Your task to perform on an android device: open chrome and create a bookmark for the current page Image 0: 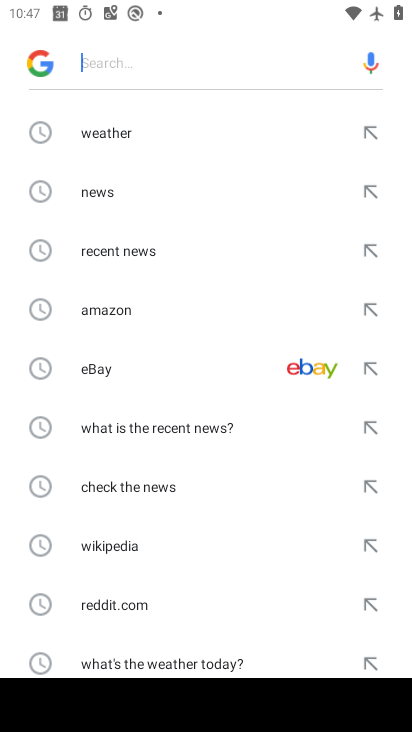
Step 0: press back button
Your task to perform on an android device: open chrome and create a bookmark for the current page Image 1: 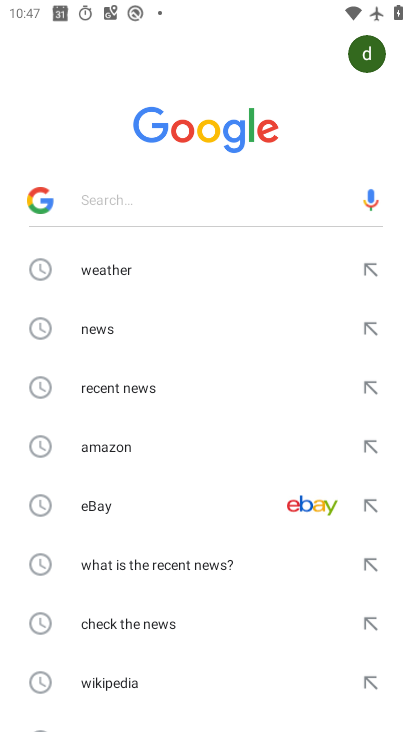
Step 1: press home button
Your task to perform on an android device: open chrome and create a bookmark for the current page Image 2: 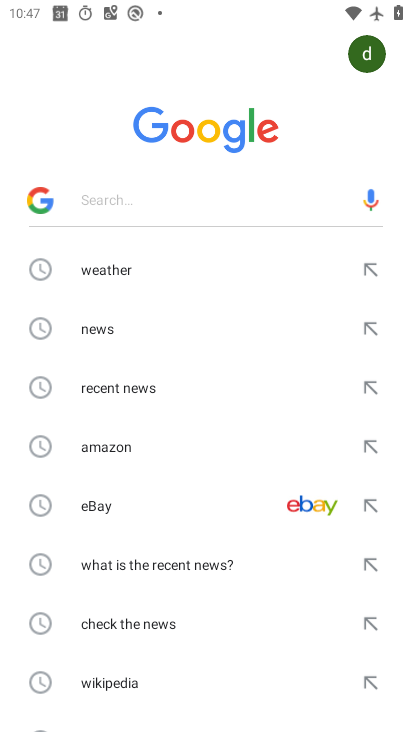
Step 2: press home button
Your task to perform on an android device: open chrome and create a bookmark for the current page Image 3: 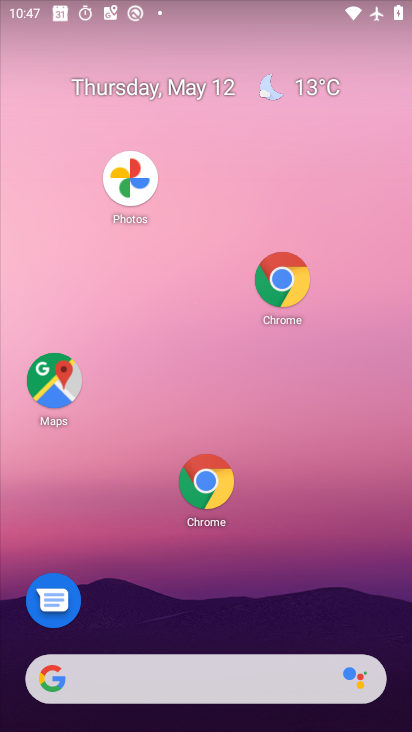
Step 3: drag from (243, 511) to (42, 75)
Your task to perform on an android device: open chrome and create a bookmark for the current page Image 4: 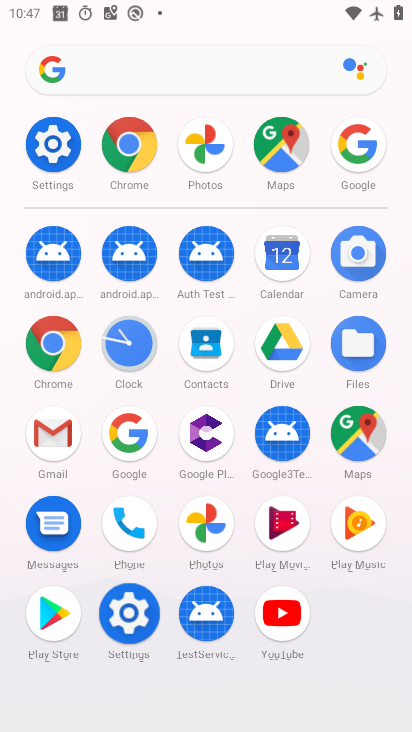
Step 4: click (54, 338)
Your task to perform on an android device: open chrome and create a bookmark for the current page Image 5: 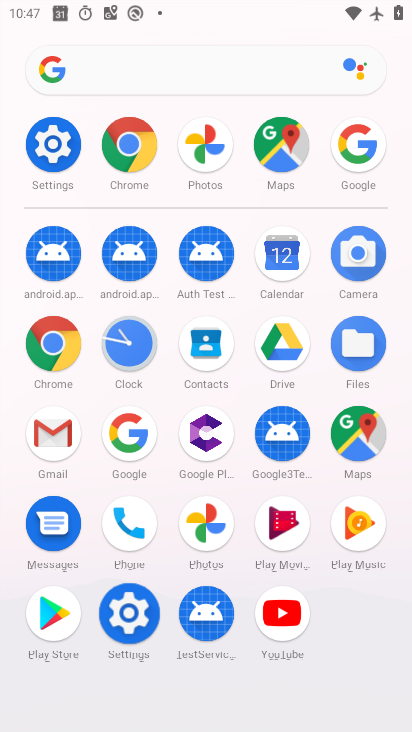
Step 5: click (54, 338)
Your task to perform on an android device: open chrome and create a bookmark for the current page Image 6: 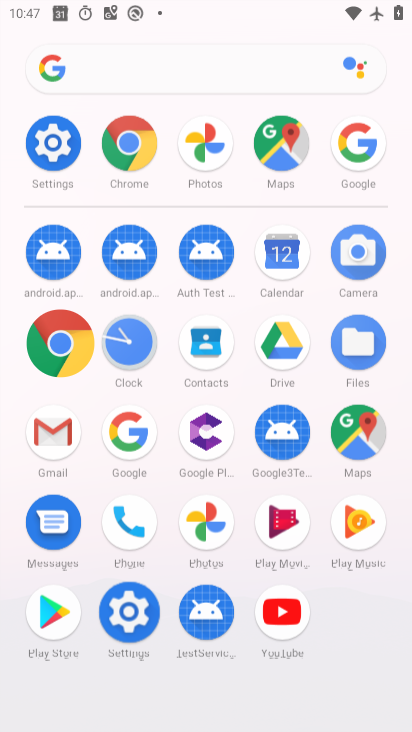
Step 6: click (54, 338)
Your task to perform on an android device: open chrome and create a bookmark for the current page Image 7: 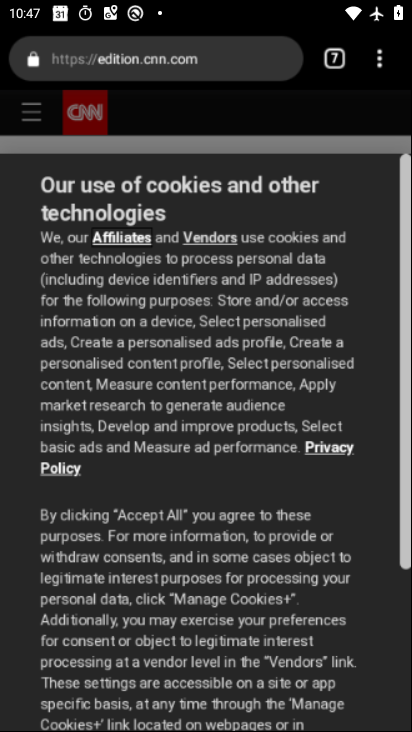
Step 7: click (54, 339)
Your task to perform on an android device: open chrome and create a bookmark for the current page Image 8: 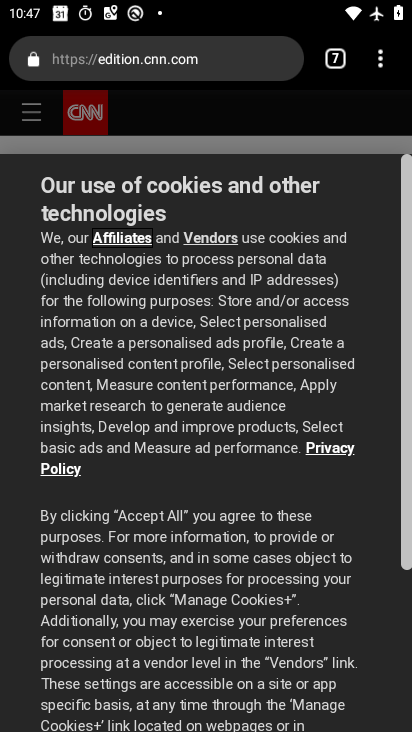
Step 8: drag from (376, 56) to (178, 210)
Your task to perform on an android device: open chrome and create a bookmark for the current page Image 9: 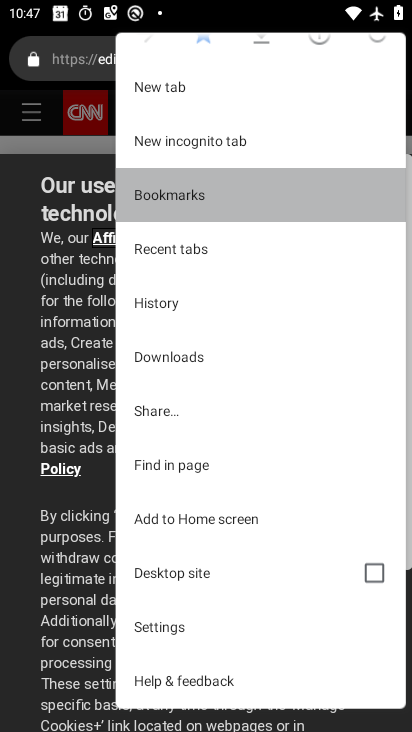
Step 9: click (178, 210)
Your task to perform on an android device: open chrome and create a bookmark for the current page Image 10: 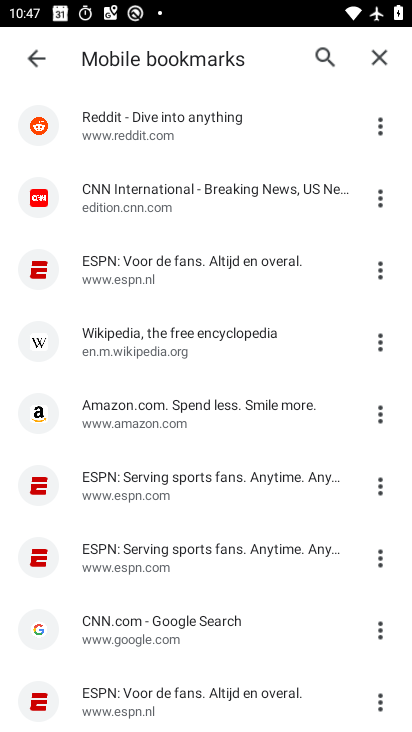
Step 10: click (37, 52)
Your task to perform on an android device: open chrome and create a bookmark for the current page Image 11: 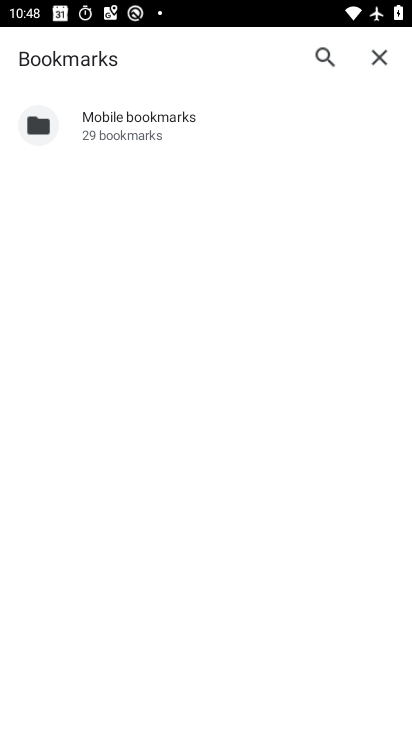
Step 11: click (385, 56)
Your task to perform on an android device: open chrome and create a bookmark for the current page Image 12: 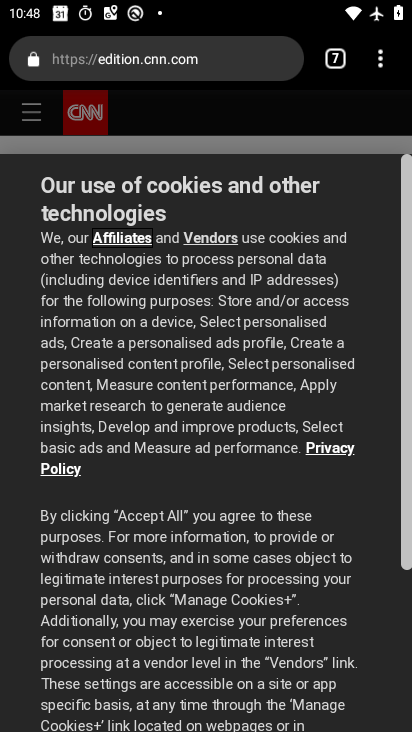
Step 12: click (214, 48)
Your task to perform on an android device: open chrome and create a bookmark for the current page Image 13: 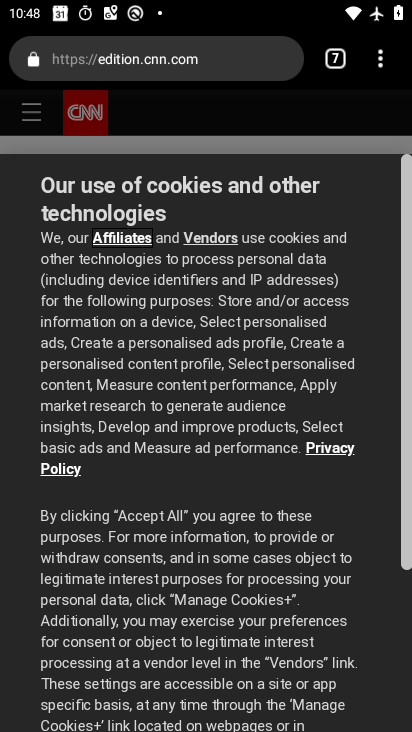
Step 13: click (201, 52)
Your task to perform on an android device: open chrome and create a bookmark for the current page Image 14: 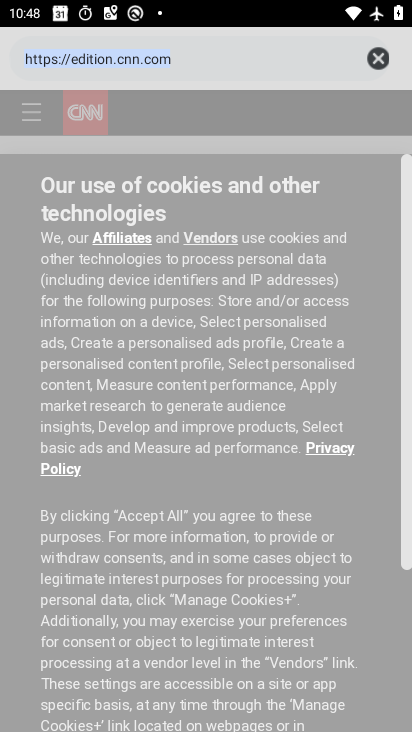
Step 14: click (174, 60)
Your task to perform on an android device: open chrome and create a bookmark for the current page Image 15: 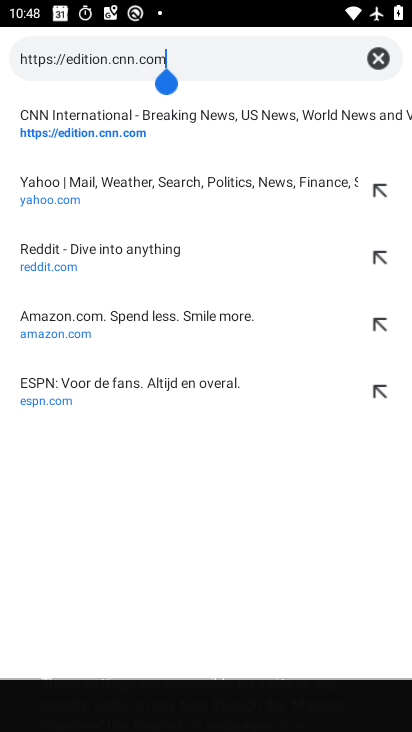
Step 15: click (174, 60)
Your task to perform on an android device: open chrome and create a bookmark for the current page Image 16: 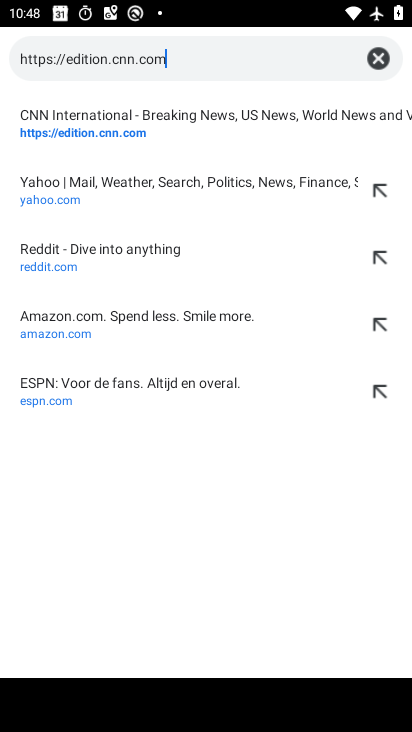
Step 16: click (372, 184)
Your task to perform on an android device: open chrome and create a bookmark for the current page Image 17: 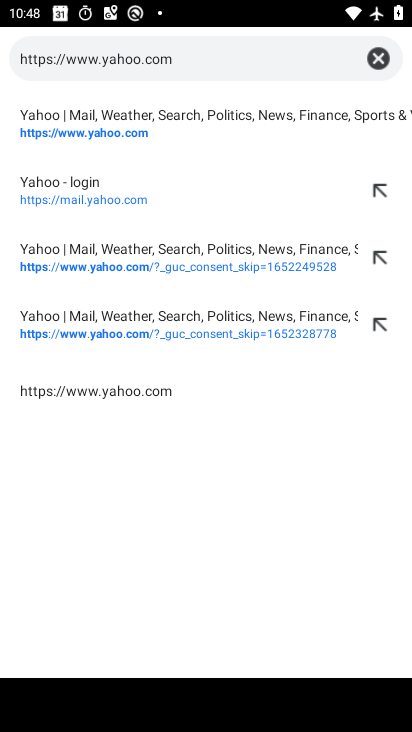
Step 17: click (378, 195)
Your task to perform on an android device: open chrome and create a bookmark for the current page Image 18: 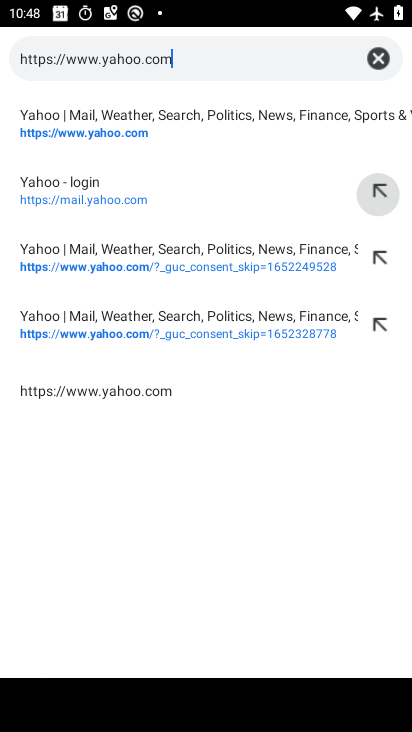
Step 18: click (378, 195)
Your task to perform on an android device: open chrome and create a bookmark for the current page Image 19: 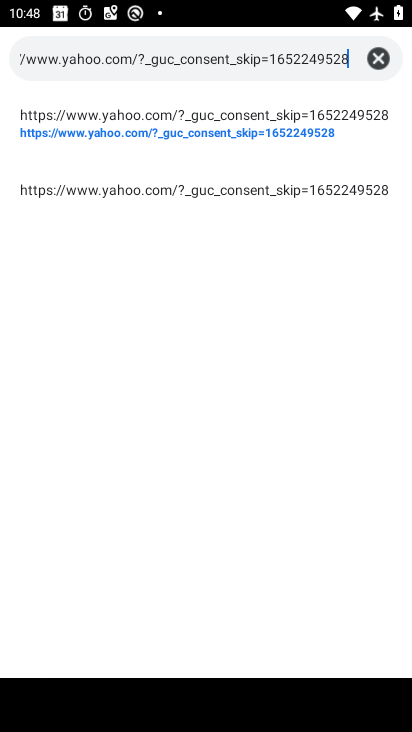
Step 19: click (376, 188)
Your task to perform on an android device: open chrome and create a bookmark for the current page Image 20: 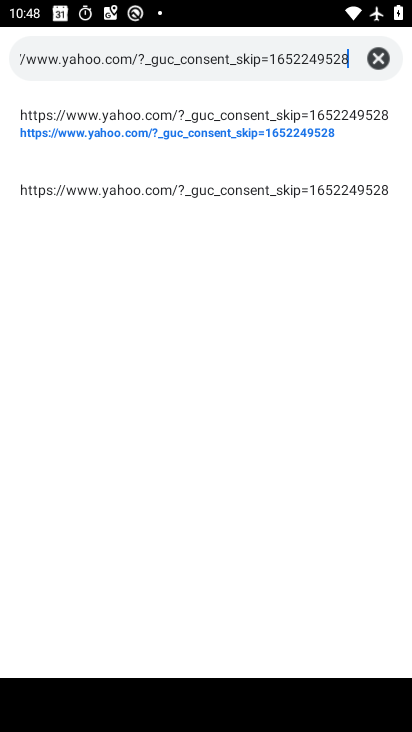
Step 20: click (255, 128)
Your task to perform on an android device: open chrome and create a bookmark for the current page Image 21: 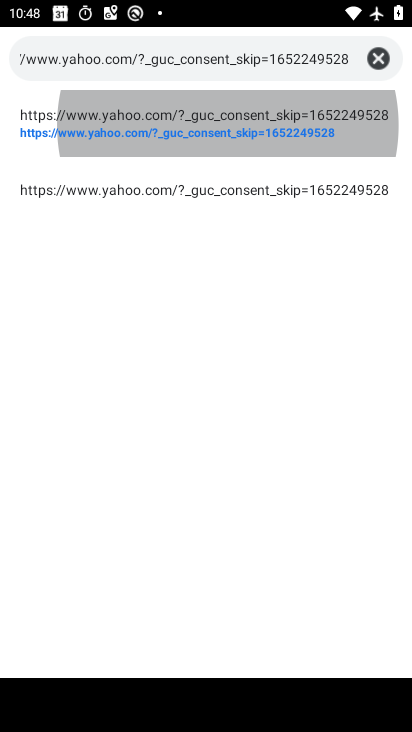
Step 21: click (255, 128)
Your task to perform on an android device: open chrome and create a bookmark for the current page Image 22: 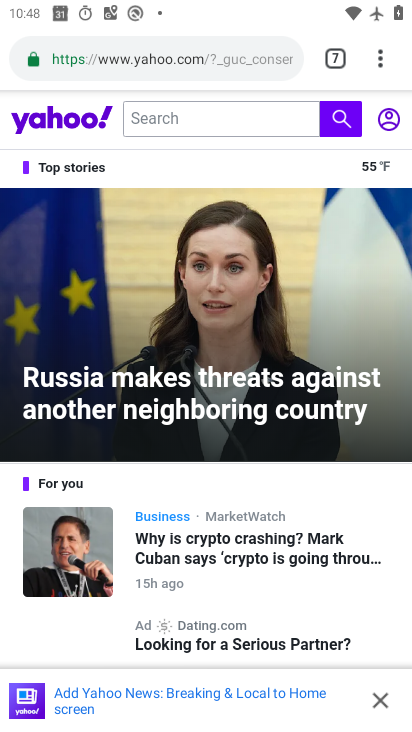
Step 22: drag from (380, 58) to (180, 144)
Your task to perform on an android device: open chrome and create a bookmark for the current page Image 23: 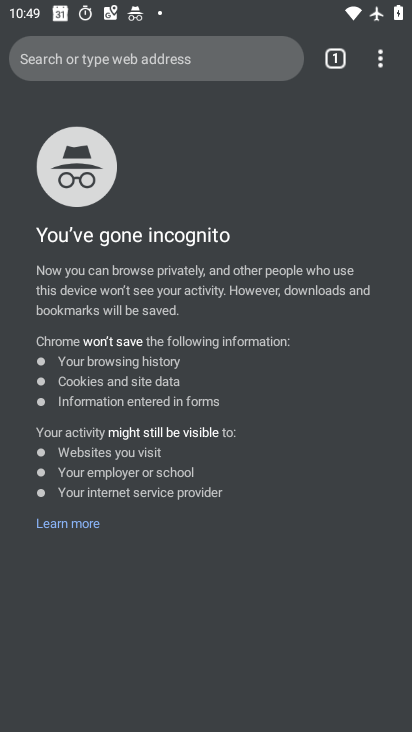
Step 23: click (374, 65)
Your task to perform on an android device: open chrome and create a bookmark for the current page Image 24: 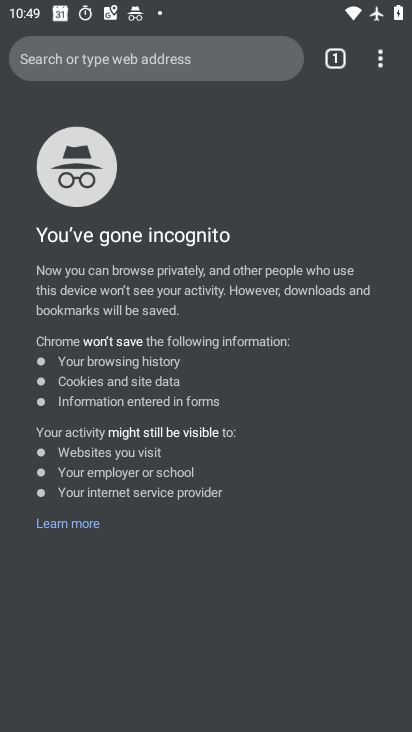
Step 24: click (379, 57)
Your task to perform on an android device: open chrome and create a bookmark for the current page Image 25: 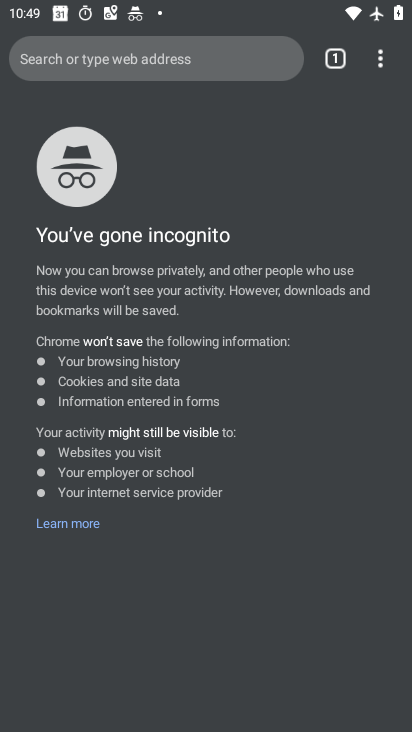
Step 25: click (378, 61)
Your task to perform on an android device: open chrome and create a bookmark for the current page Image 26: 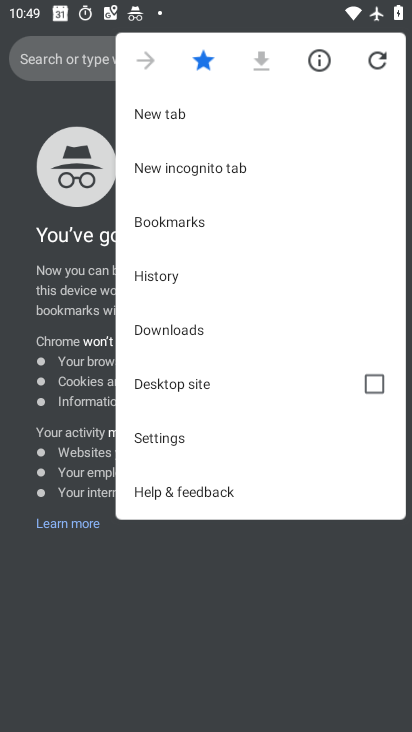
Step 26: click (103, 649)
Your task to perform on an android device: open chrome and create a bookmark for the current page Image 27: 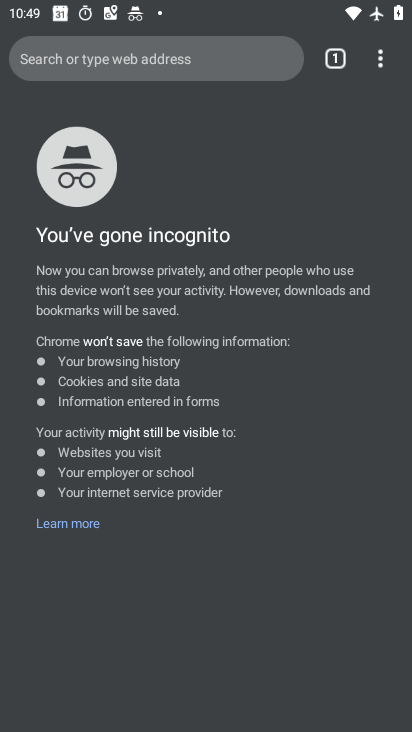
Step 27: click (103, 649)
Your task to perform on an android device: open chrome and create a bookmark for the current page Image 28: 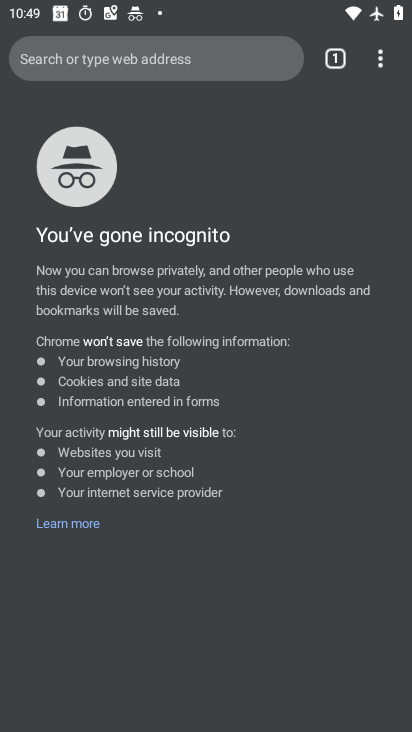
Step 28: click (103, 649)
Your task to perform on an android device: open chrome and create a bookmark for the current page Image 29: 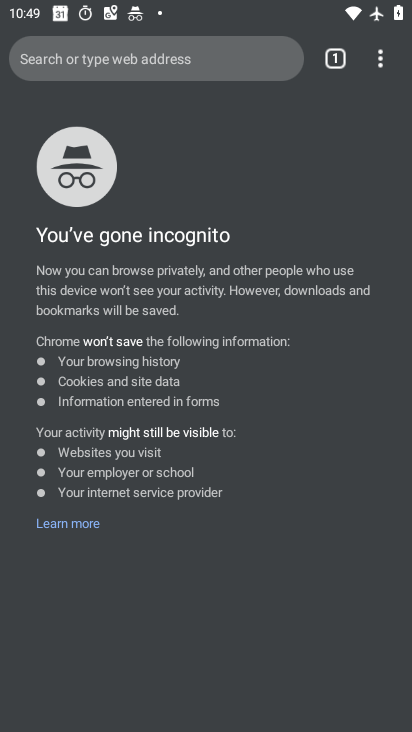
Step 29: press back button
Your task to perform on an android device: open chrome and create a bookmark for the current page Image 30: 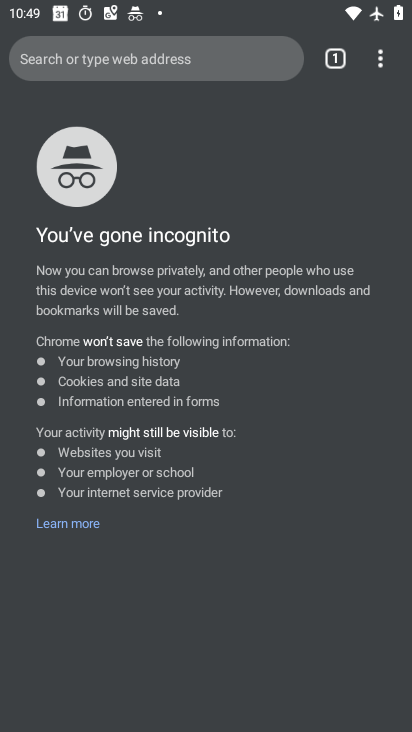
Step 30: press back button
Your task to perform on an android device: open chrome and create a bookmark for the current page Image 31: 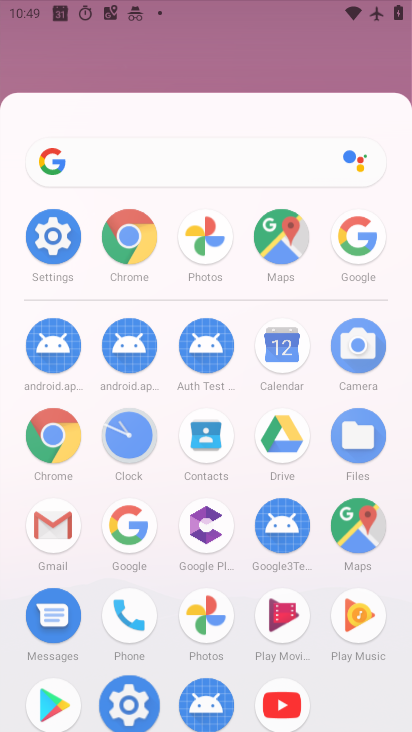
Step 31: press back button
Your task to perform on an android device: open chrome and create a bookmark for the current page Image 32: 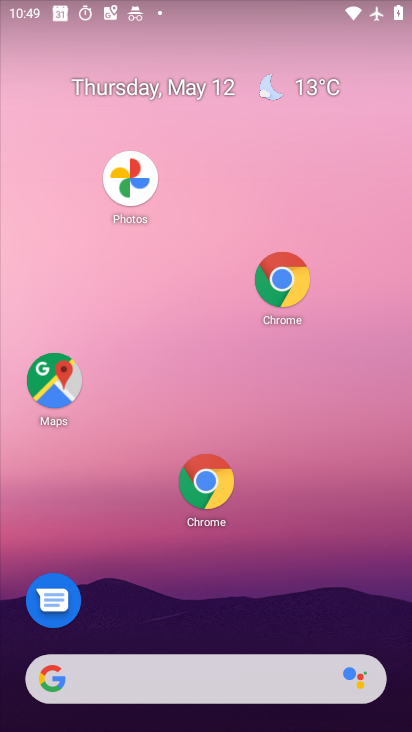
Step 32: drag from (221, 683) to (192, 89)
Your task to perform on an android device: open chrome and create a bookmark for the current page Image 33: 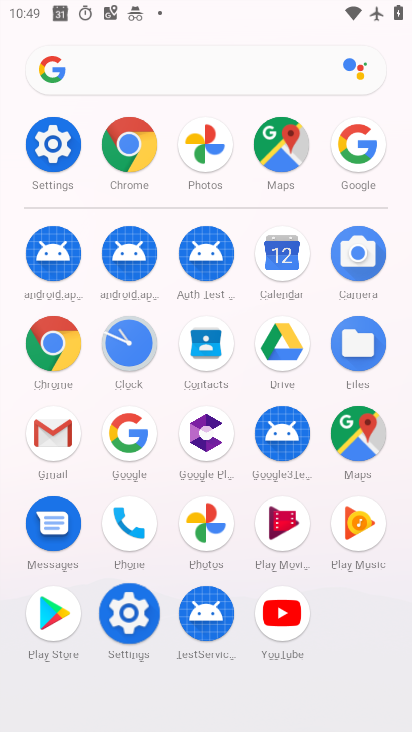
Step 33: click (140, 150)
Your task to perform on an android device: open chrome and create a bookmark for the current page Image 34: 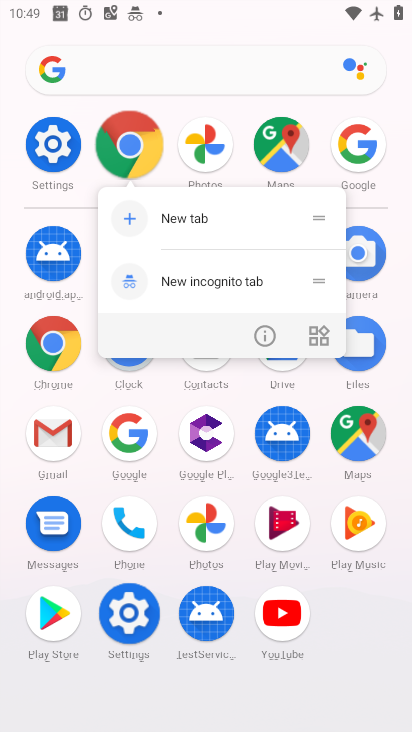
Step 34: click (138, 147)
Your task to perform on an android device: open chrome and create a bookmark for the current page Image 35: 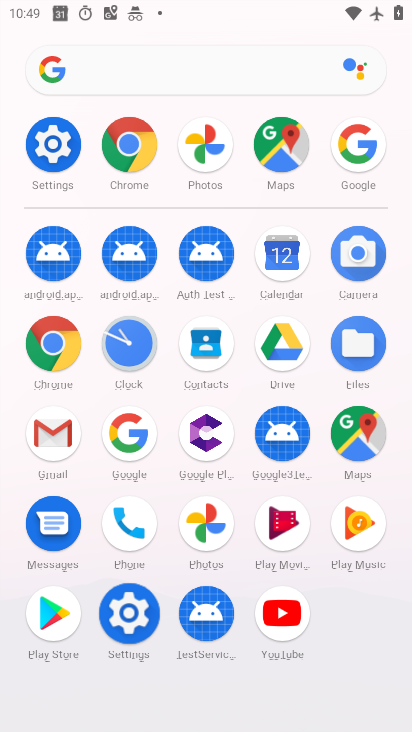
Step 35: click (135, 146)
Your task to perform on an android device: open chrome and create a bookmark for the current page Image 36: 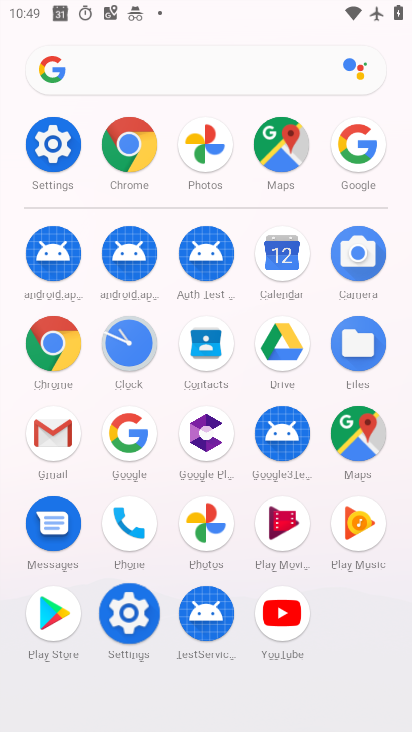
Step 36: click (135, 146)
Your task to perform on an android device: open chrome and create a bookmark for the current page Image 37: 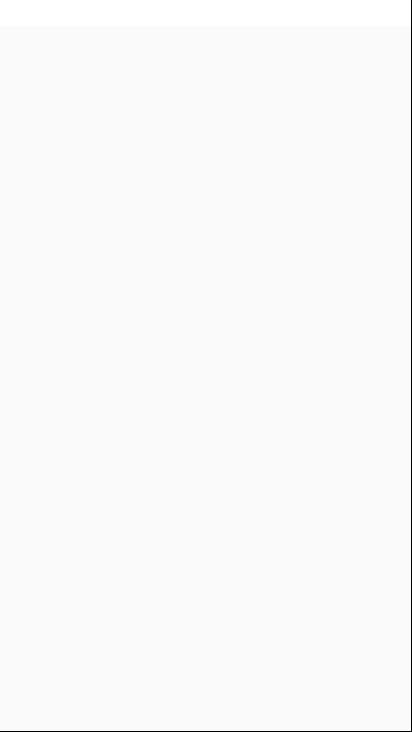
Step 37: click (133, 145)
Your task to perform on an android device: open chrome and create a bookmark for the current page Image 38: 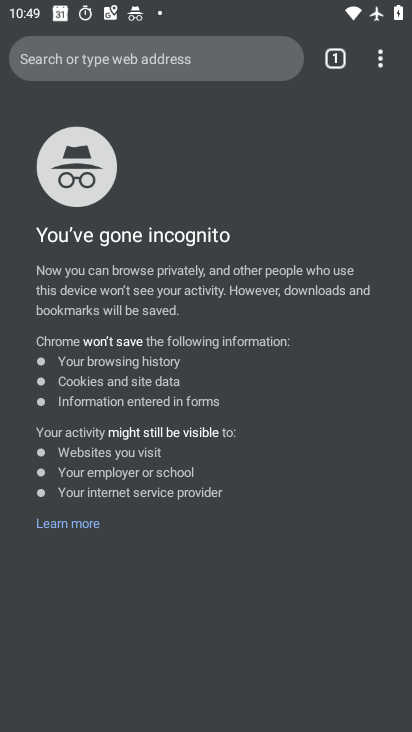
Step 38: click (133, 145)
Your task to perform on an android device: open chrome and create a bookmark for the current page Image 39: 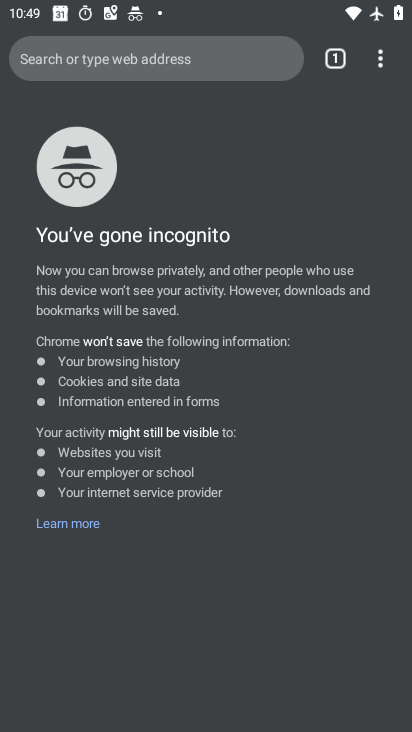
Step 39: click (133, 145)
Your task to perform on an android device: open chrome and create a bookmark for the current page Image 40: 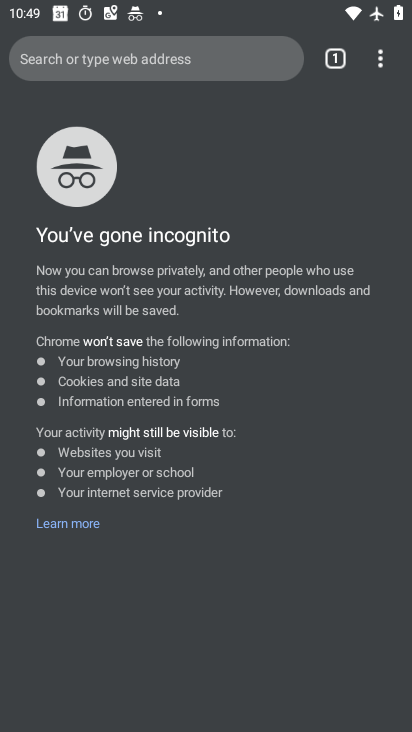
Step 40: click (133, 145)
Your task to perform on an android device: open chrome and create a bookmark for the current page Image 41: 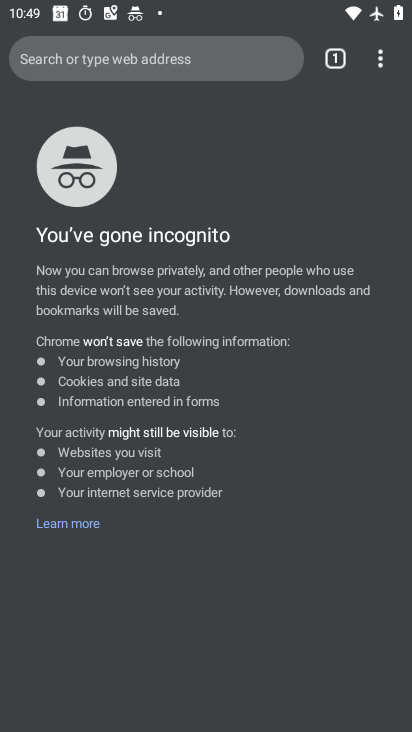
Step 41: click (133, 145)
Your task to perform on an android device: open chrome and create a bookmark for the current page Image 42: 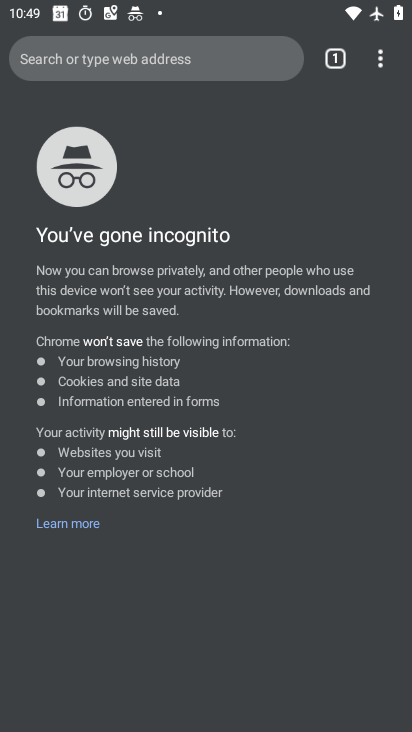
Step 42: click (133, 145)
Your task to perform on an android device: open chrome and create a bookmark for the current page Image 43: 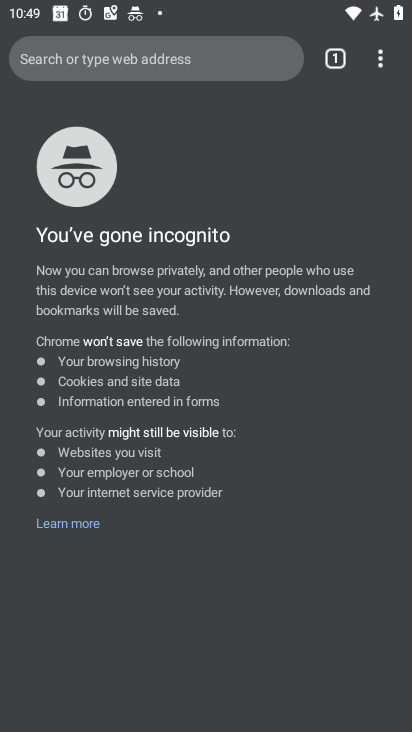
Step 43: click (381, 59)
Your task to perform on an android device: open chrome and create a bookmark for the current page Image 44: 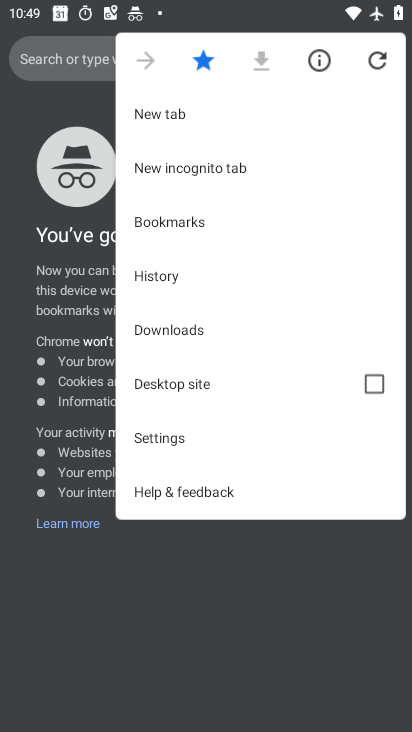
Step 44: click (158, 108)
Your task to perform on an android device: open chrome and create a bookmark for the current page Image 45: 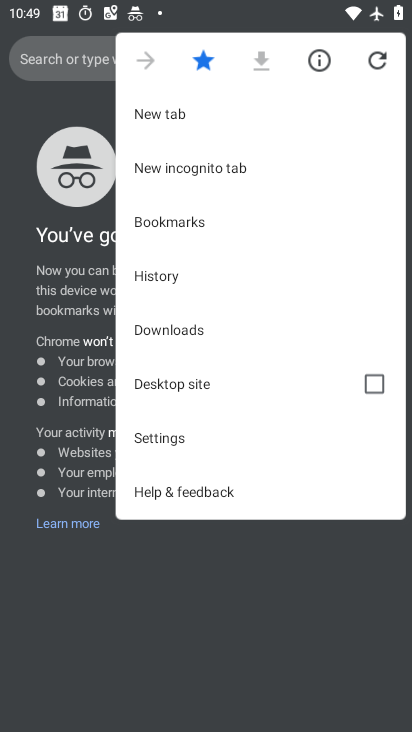
Step 45: click (159, 109)
Your task to perform on an android device: open chrome and create a bookmark for the current page Image 46: 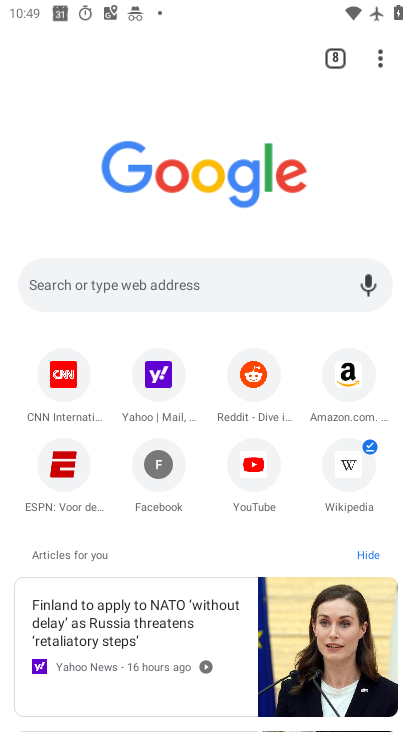
Step 46: drag from (378, 59) to (154, 219)
Your task to perform on an android device: open chrome and create a bookmark for the current page Image 47: 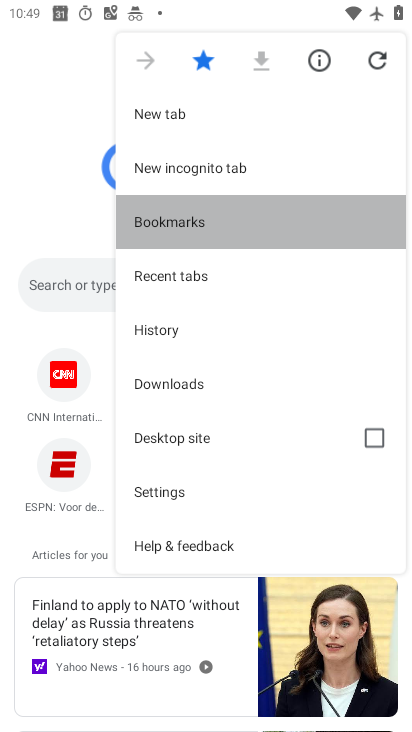
Step 47: click (154, 219)
Your task to perform on an android device: open chrome and create a bookmark for the current page Image 48: 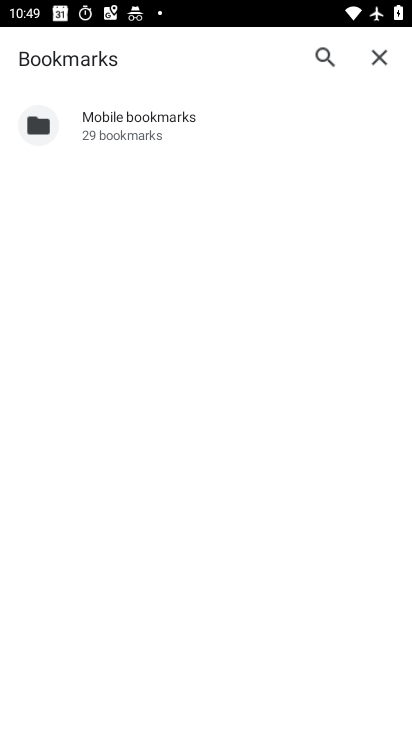
Step 48: task complete